Your task to perform on an android device: What is the recent news? Image 0: 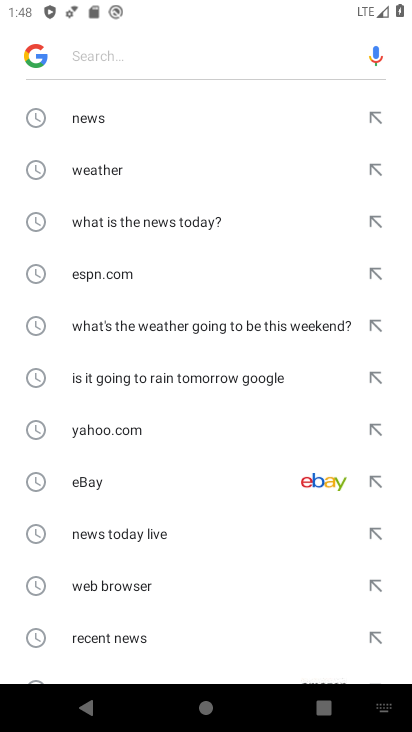
Step 0: press home button
Your task to perform on an android device: What is the recent news? Image 1: 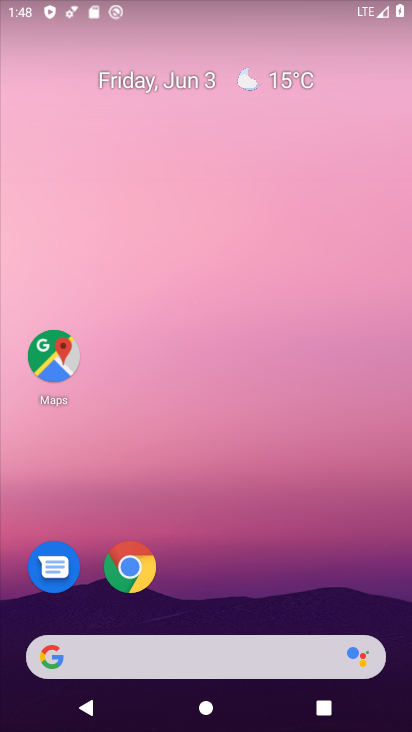
Step 1: drag from (195, 631) to (197, 154)
Your task to perform on an android device: What is the recent news? Image 2: 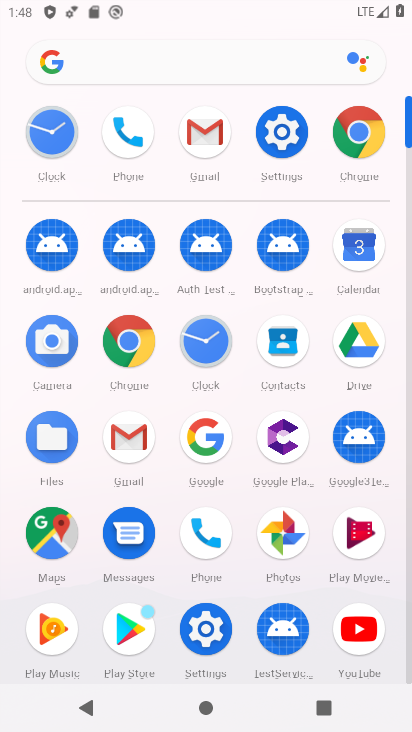
Step 2: click (209, 433)
Your task to perform on an android device: What is the recent news? Image 3: 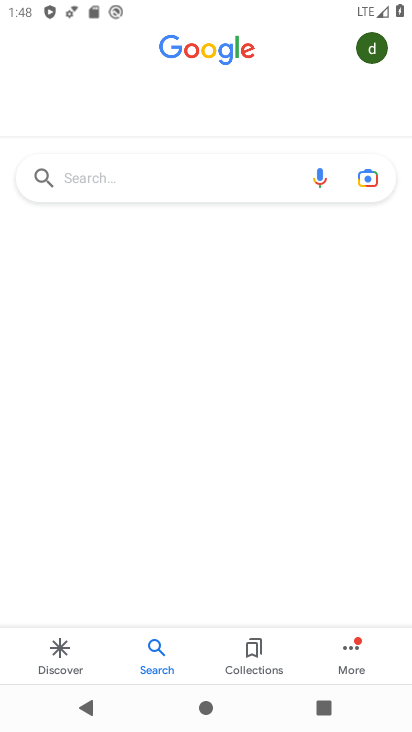
Step 3: click (119, 182)
Your task to perform on an android device: What is the recent news? Image 4: 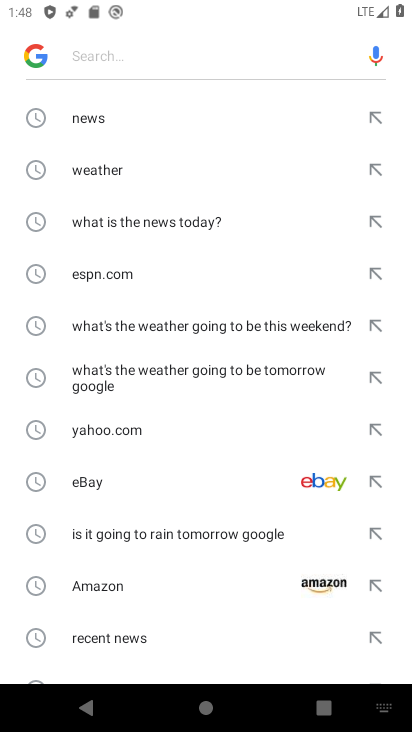
Step 4: click (111, 647)
Your task to perform on an android device: What is the recent news? Image 5: 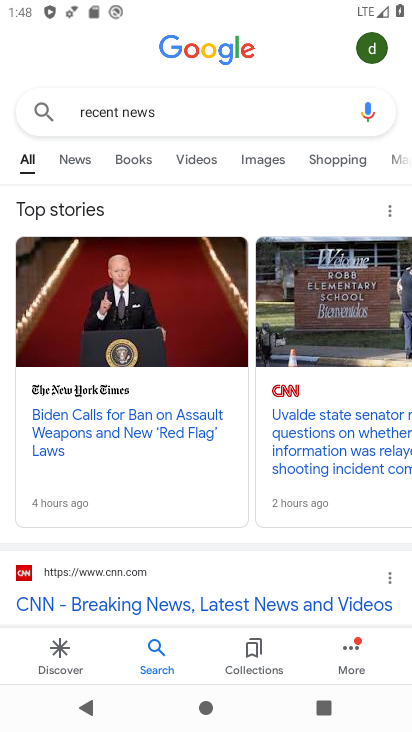
Step 5: task complete